Your task to perform on an android device: turn off notifications in google photos Image 0: 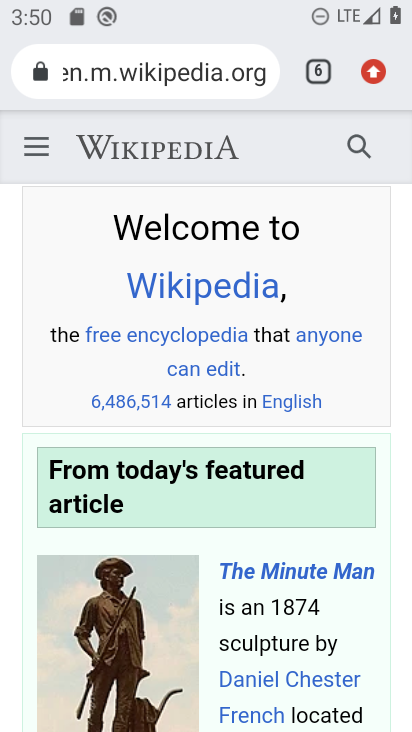
Step 0: press home button
Your task to perform on an android device: turn off notifications in google photos Image 1: 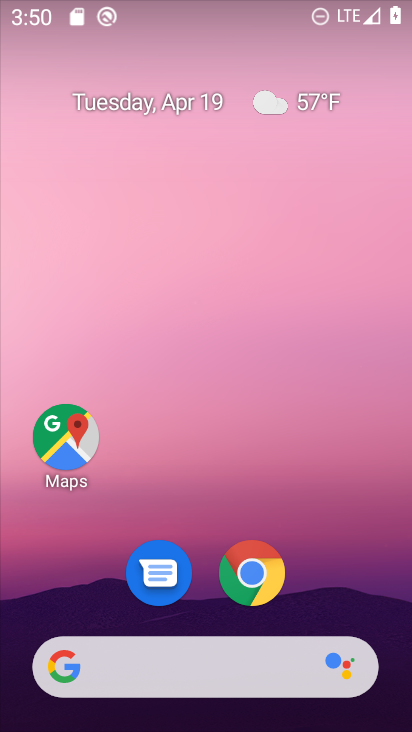
Step 1: drag from (367, 616) to (385, 34)
Your task to perform on an android device: turn off notifications in google photos Image 2: 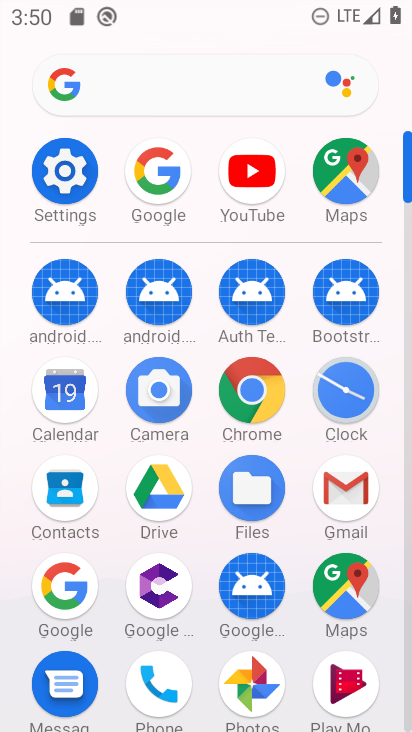
Step 2: click (245, 670)
Your task to perform on an android device: turn off notifications in google photos Image 3: 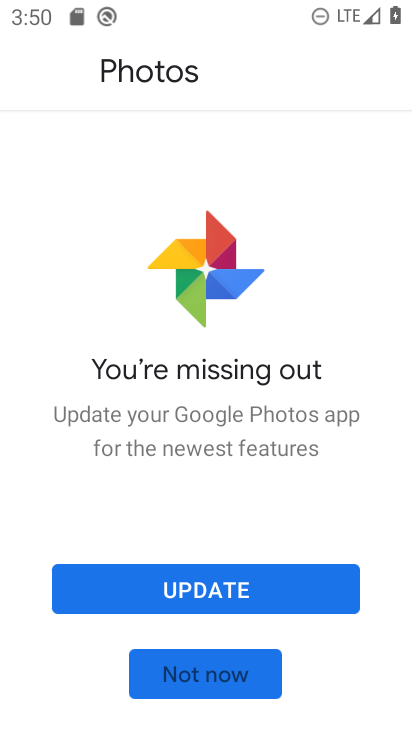
Step 3: click (207, 685)
Your task to perform on an android device: turn off notifications in google photos Image 4: 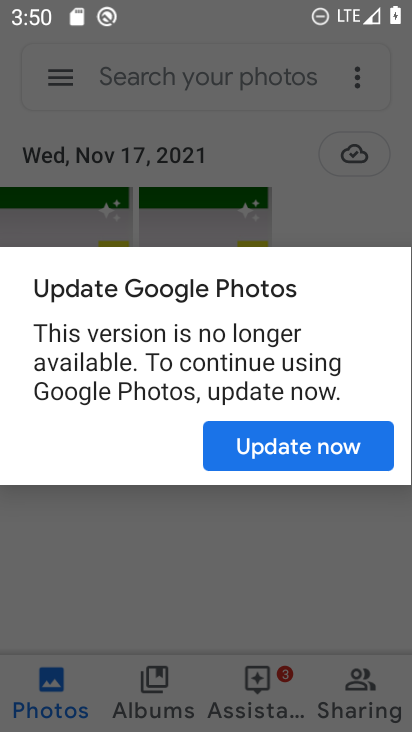
Step 4: click (253, 457)
Your task to perform on an android device: turn off notifications in google photos Image 5: 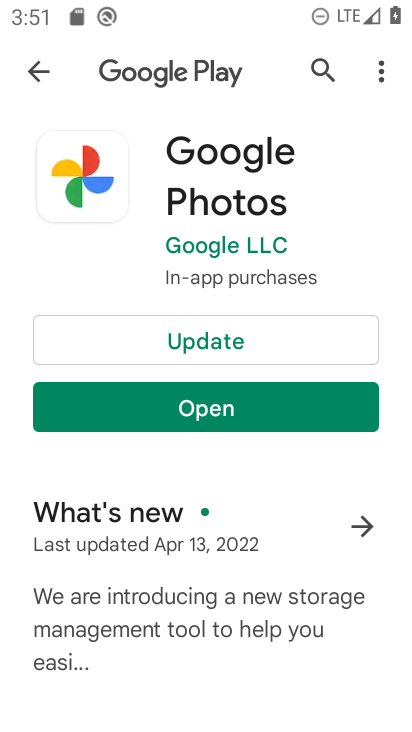
Step 5: click (235, 416)
Your task to perform on an android device: turn off notifications in google photos Image 6: 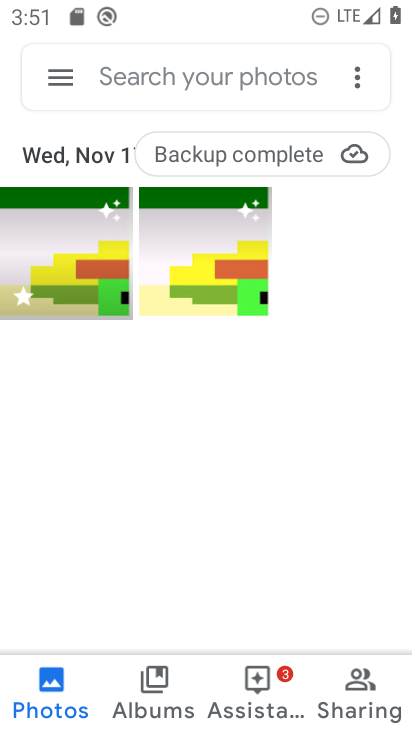
Step 6: click (51, 81)
Your task to perform on an android device: turn off notifications in google photos Image 7: 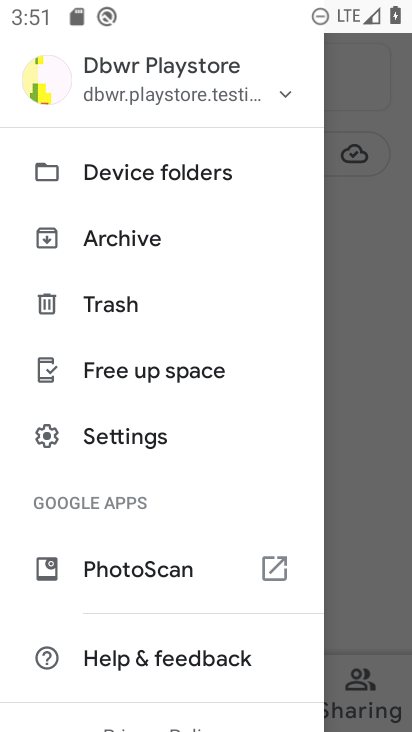
Step 7: click (156, 443)
Your task to perform on an android device: turn off notifications in google photos Image 8: 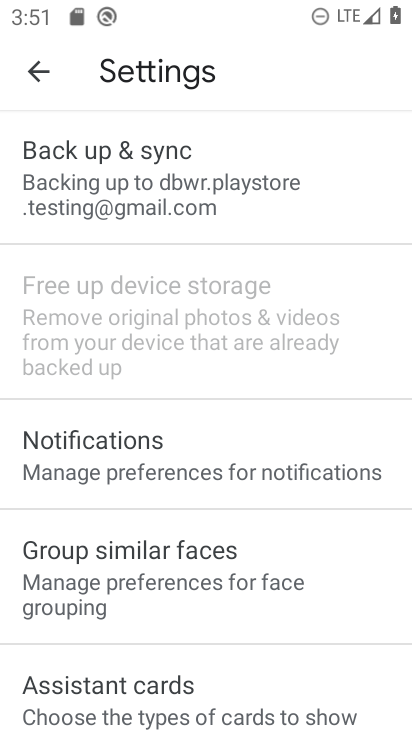
Step 8: click (156, 443)
Your task to perform on an android device: turn off notifications in google photos Image 9: 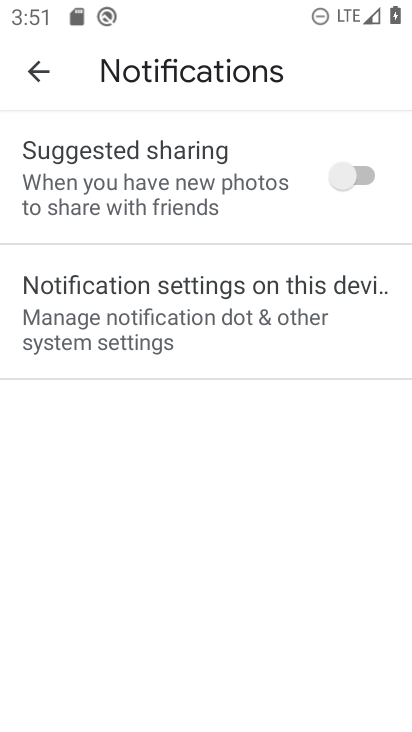
Step 9: click (133, 331)
Your task to perform on an android device: turn off notifications in google photos Image 10: 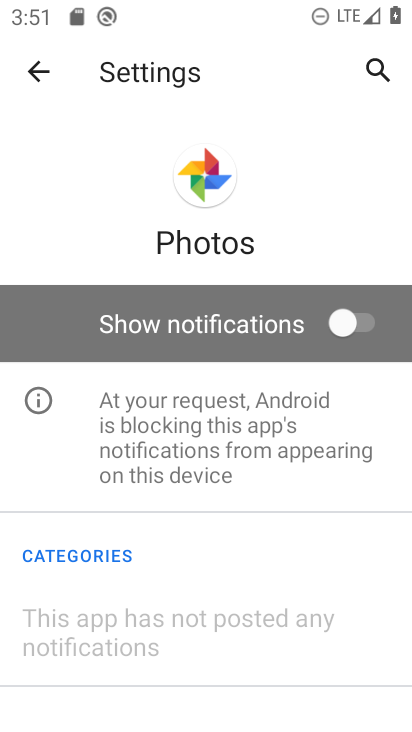
Step 10: task complete